Your task to perform on an android device: set the timer Image 0: 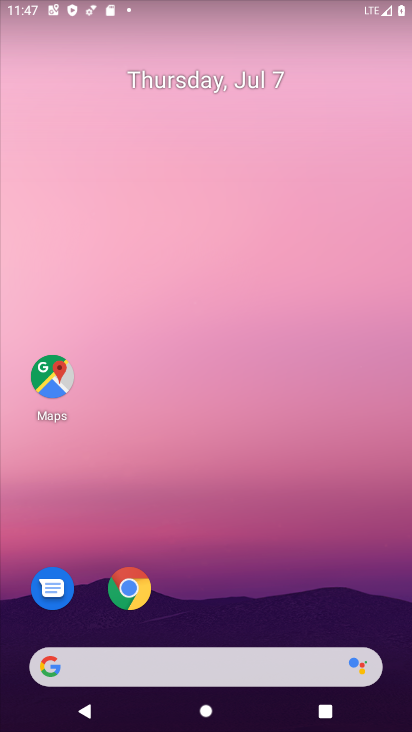
Step 0: drag from (200, 611) to (218, 118)
Your task to perform on an android device: set the timer Image 1: 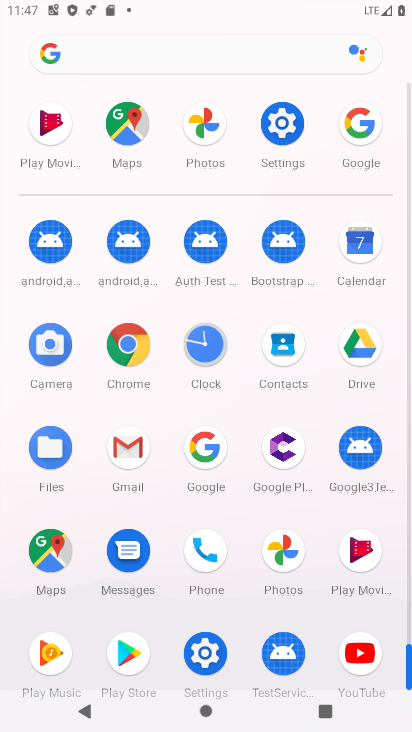
Step 1: click (202, 349)
Your task to perform on an android device: set the timer Image 2: 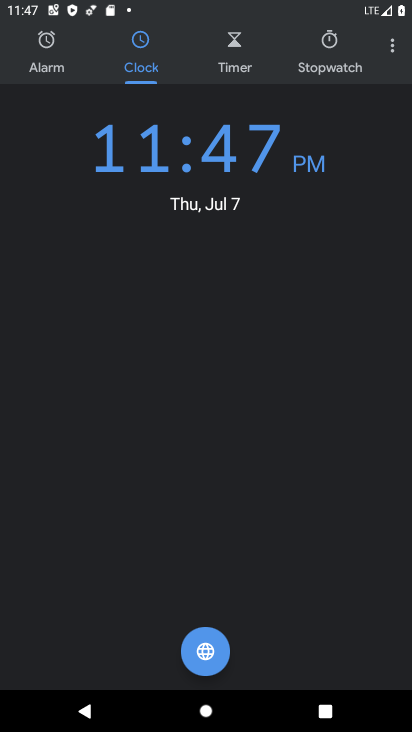
Step 2: click (227, 58)
Your task to perform on an android device: set the timer Image 3: 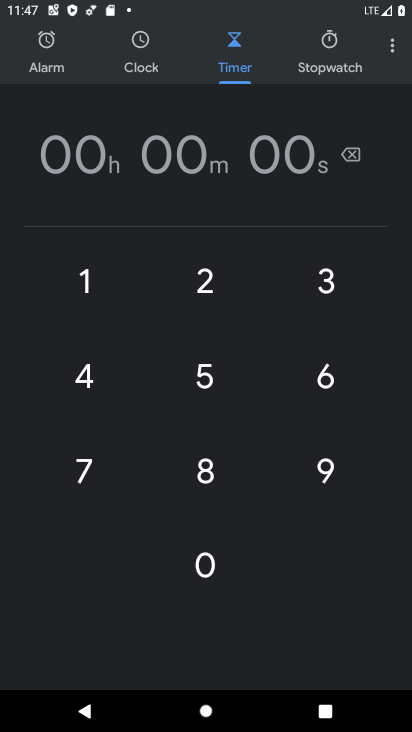
Step 3: click (213, 272)
Your task to perform on an android device: set the timer Image 4: 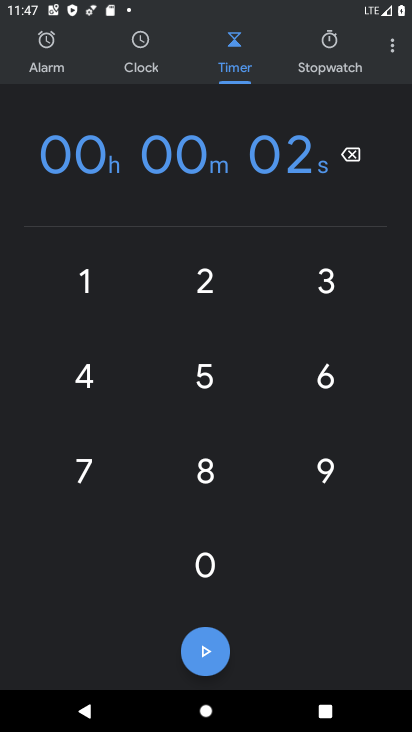
Step 4: click (213, 272)
Your task to perform on an android device: set the timer Image 5: 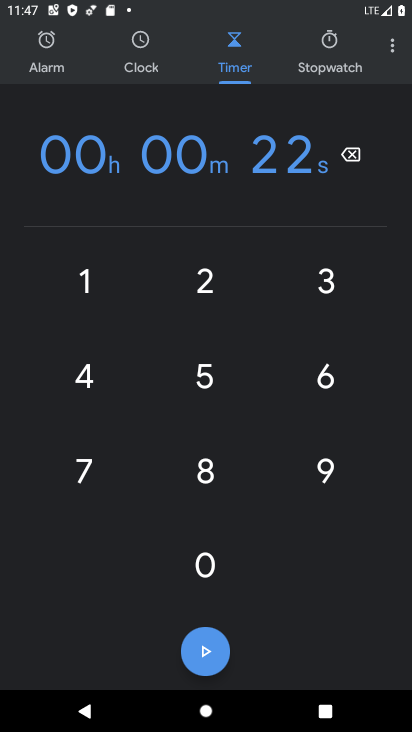
Step 5: task complete